Your task to perform on an android device: toggle priority inbox in the gmail app Image 0: 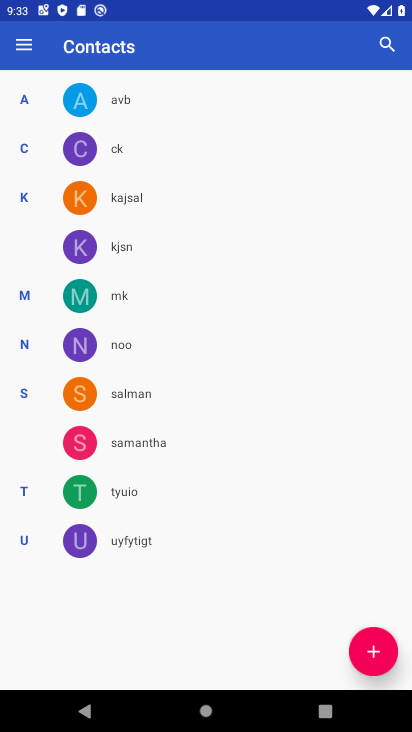
Step 0: press home button
Your task to perform on an android device: toggle priority inbox in the gmail app Image 1: 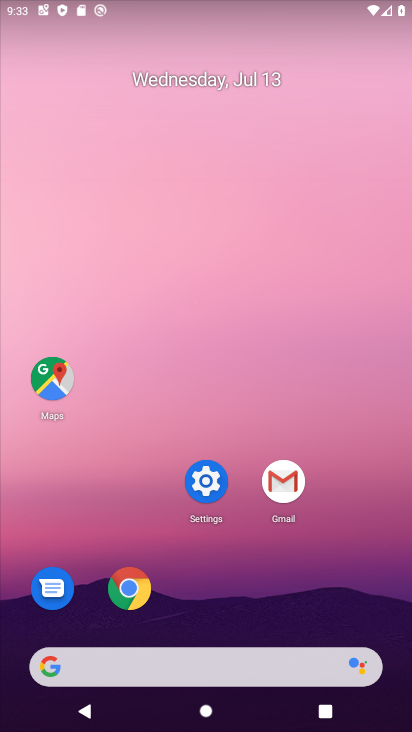
Step 1: click (288, 496)
Your task to perform on an android device: toggle priority inbox in the gmail app Image 2: 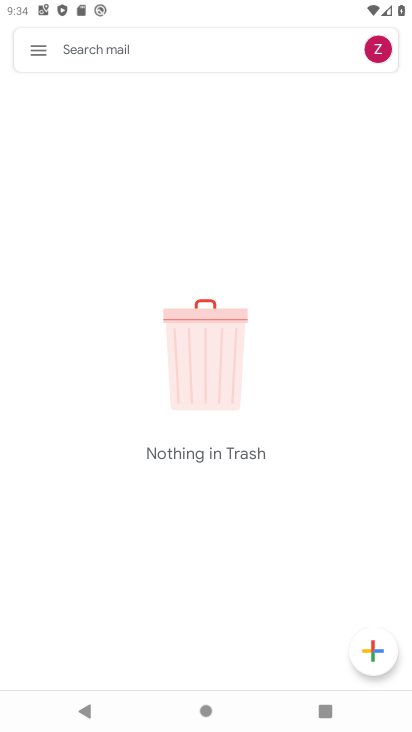
Step 2: click (30, 48)
Your task to perform on an android device: toggle priority inbox in the gmail app Image 3: 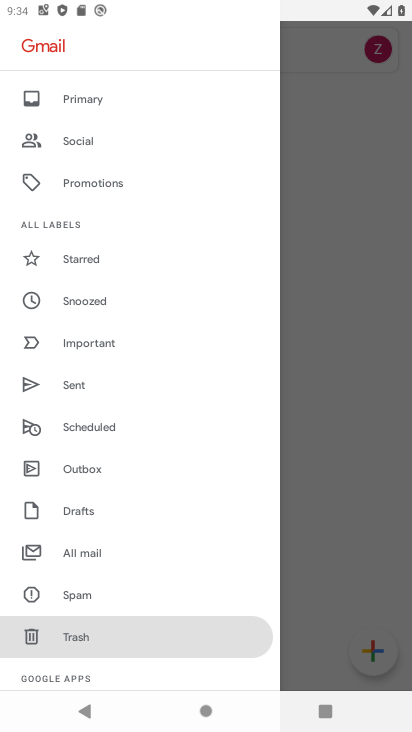
Step 3: drag from (220, 528) to (200, 279)
Your task to perform on an android device: toggle priority inbox in the gmail app Image 4: 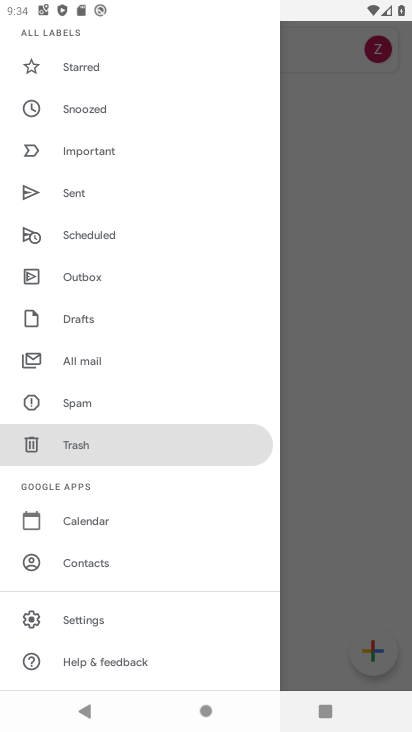
Step 4: click (78, 618)
Your task to perform on an android device: toggle priority inbox in the gmail app Image 5: 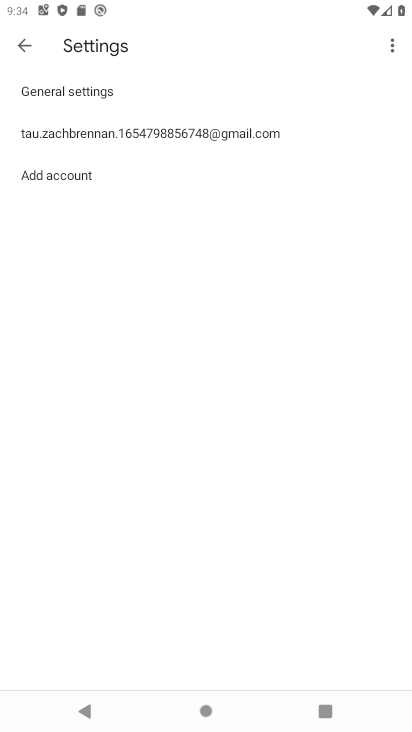
Step 5: click (115, 132)
Your task to perform on an android device: toggle priority inbox in the gmail app Image 6: 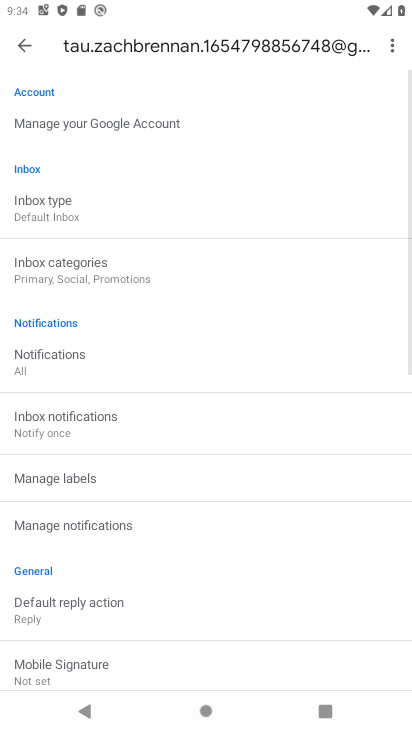
Step 6: click (51, 199)
Your task to perform on an android device: toggle priority inbox in the gmail app Image 7: 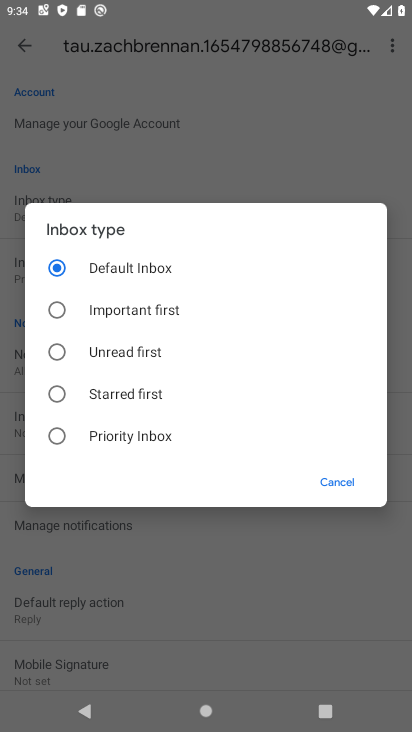
Step 7: click (58, 433)
Your task to perform on an android device: toggle priority inbox in the gmail app Image 8: 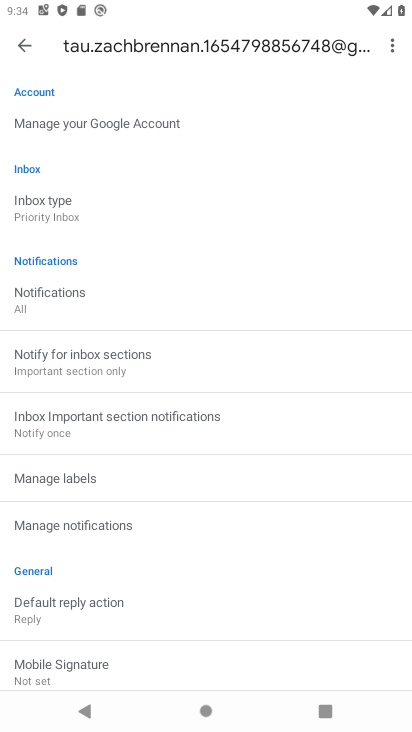
Step 8: task complete